Your task to perform on an android device: turn off data saver in the chrome app Image 0: 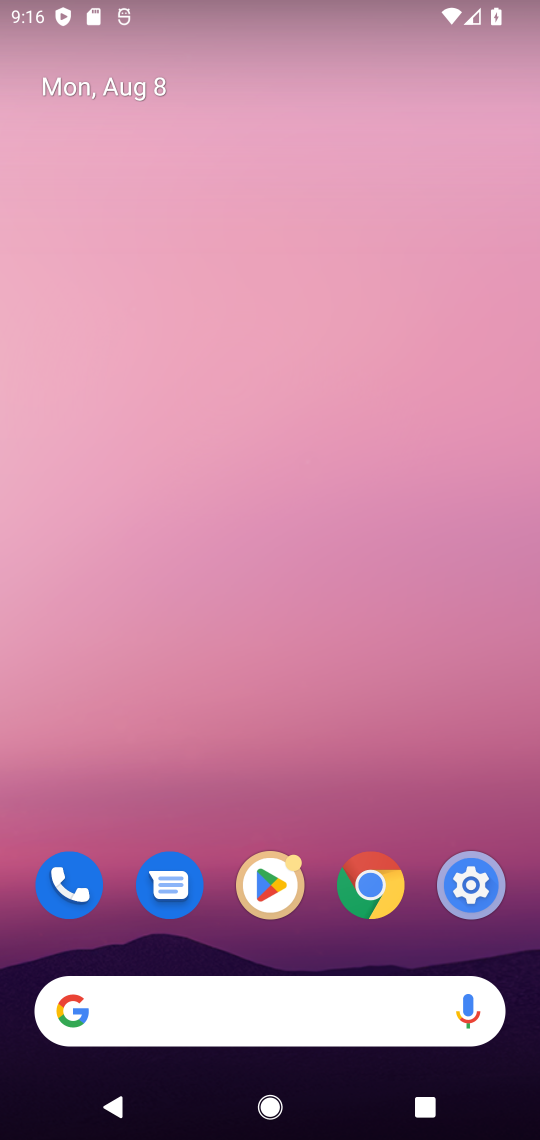
Step 0: drag from (368, 937) to (391, 567)
Your task to perform on an android device: turn off data saver in the chrome app Image 1: 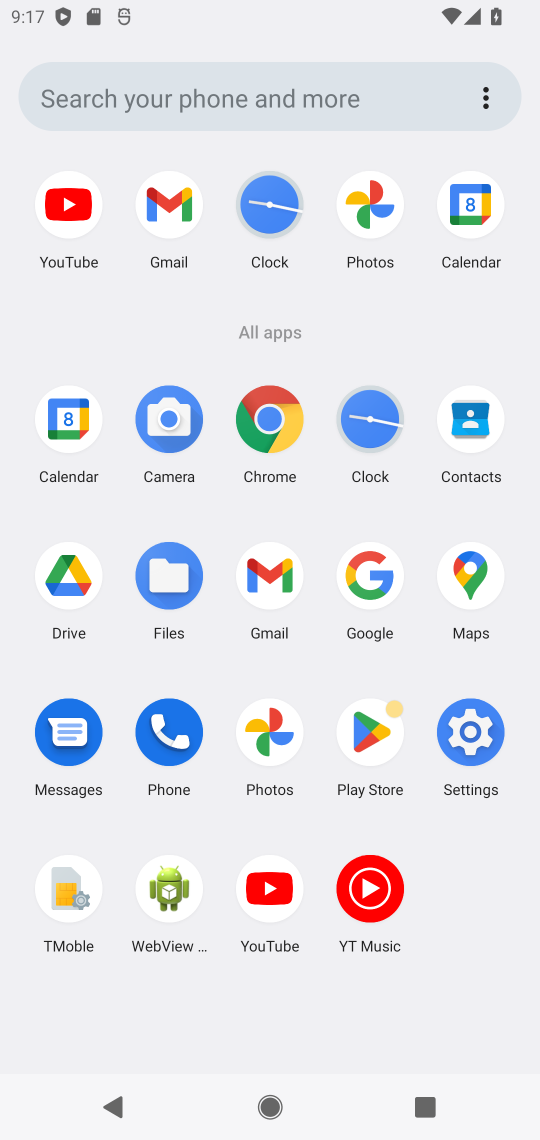
Step 1: click (257, 450)
Your task to perform on an android device: turn off data saver in the chrome app Image 2: 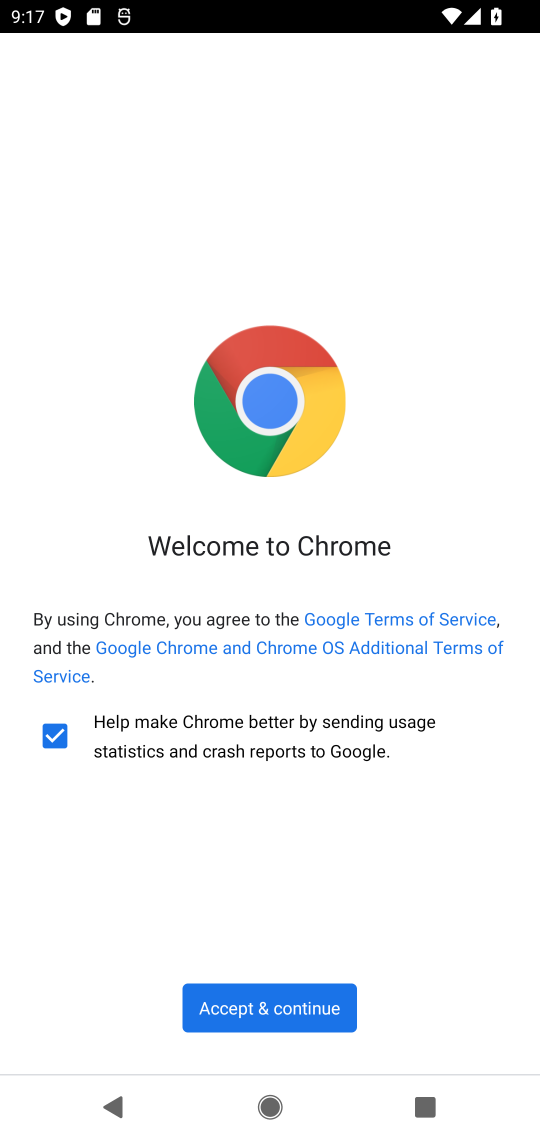
Step 2: click (307, 1018)
Your task to perform on an android device: turn off data saver in the chrome app Image 3: 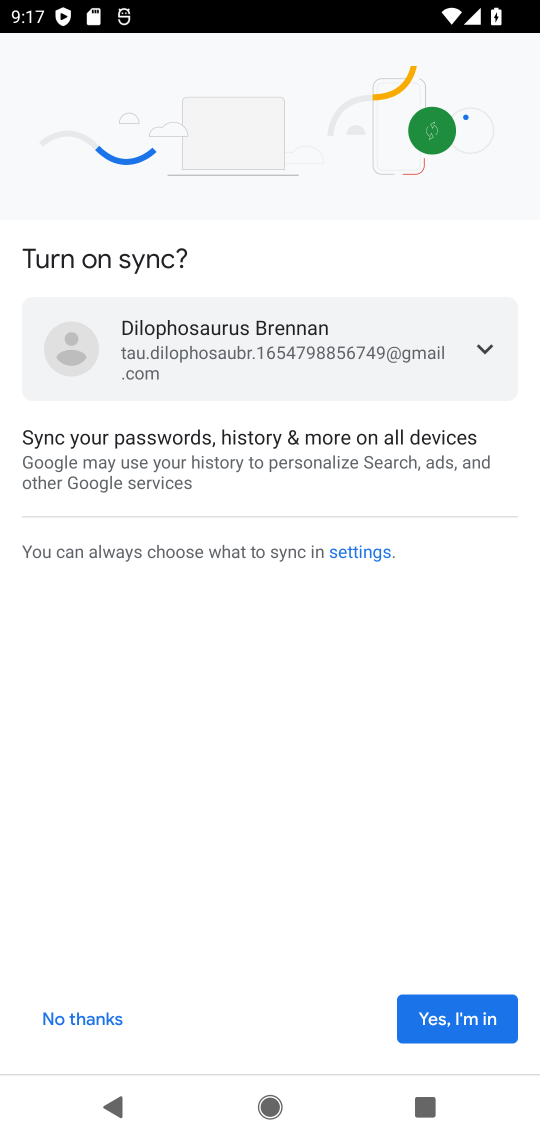
Step 3: click (453, 1018)
Your task to perform on an android device: turn off data saver in the chrome app Image 4: 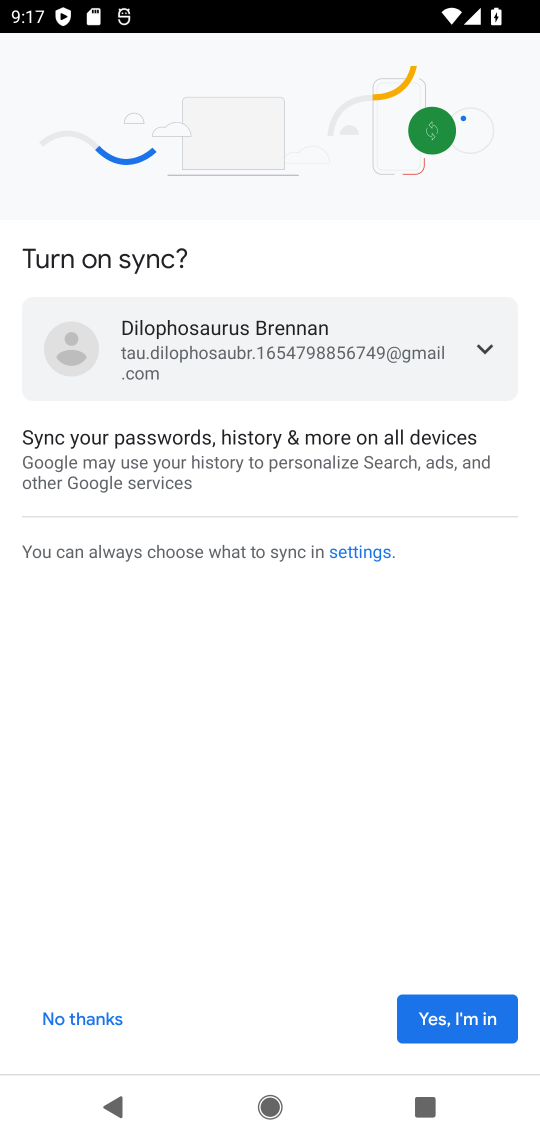
Step 4: click (453, 1018)
Your task to perform on an android device: turn off data saver in the chrome app Image 5: 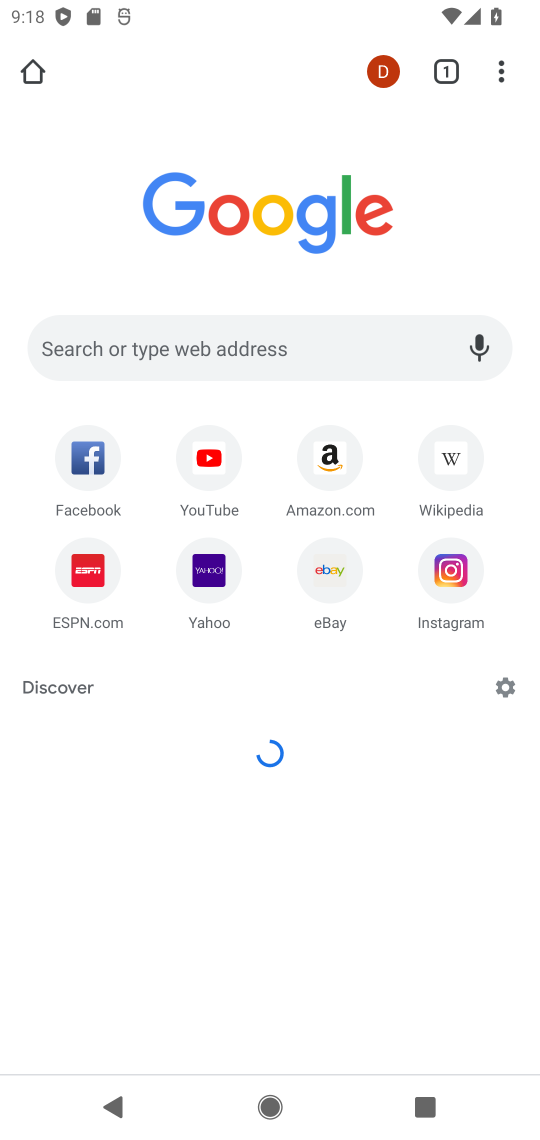
Step 5: drag from (508, 67) to (268, 688)
Your task to perform on an android device: turn off data saver in the chrome app Image 6: 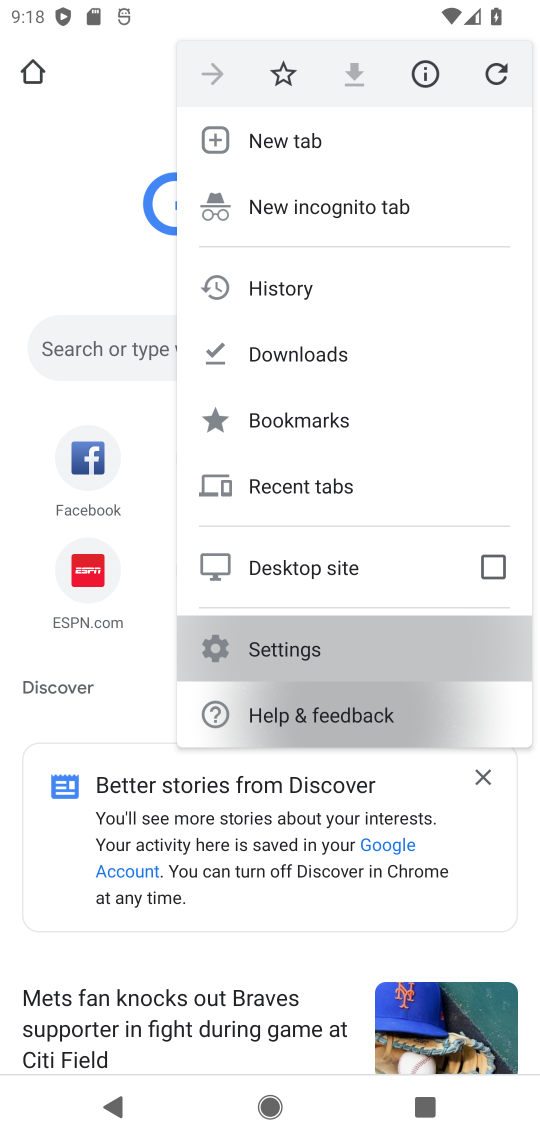
Step 6: click (233, 649)
Your task to perform on an android device: turn off data saver in the chrome app Image 7: 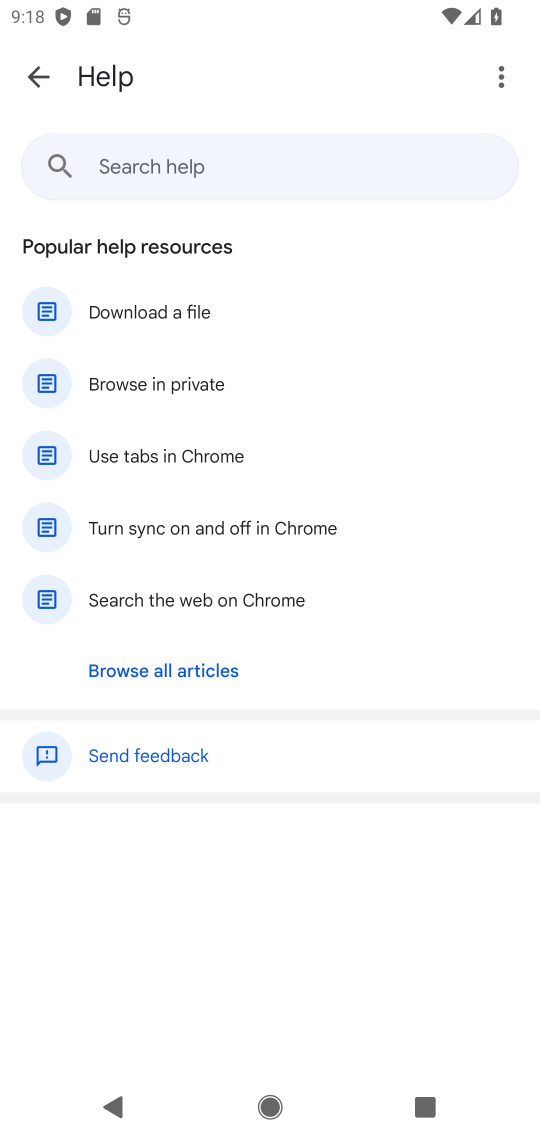
Step 7: press back button
Your task to perform on an android device: turn off data saver in the chrome app Image 8: 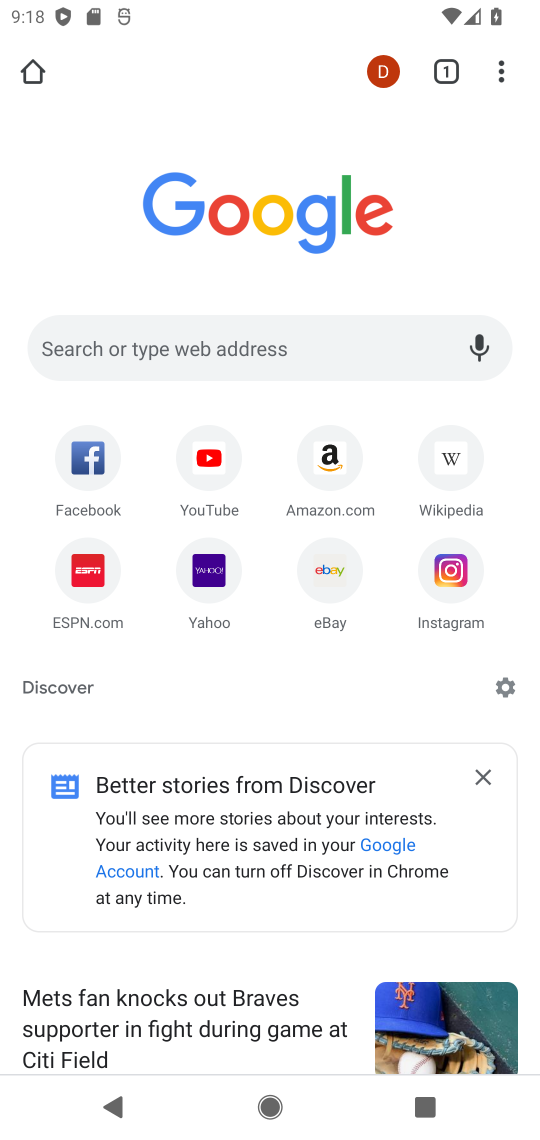
Step 8: drag from (497, 71) to (278, 641)
Your task to perform on an android device: turn off data saver in the chrome app Image 9: 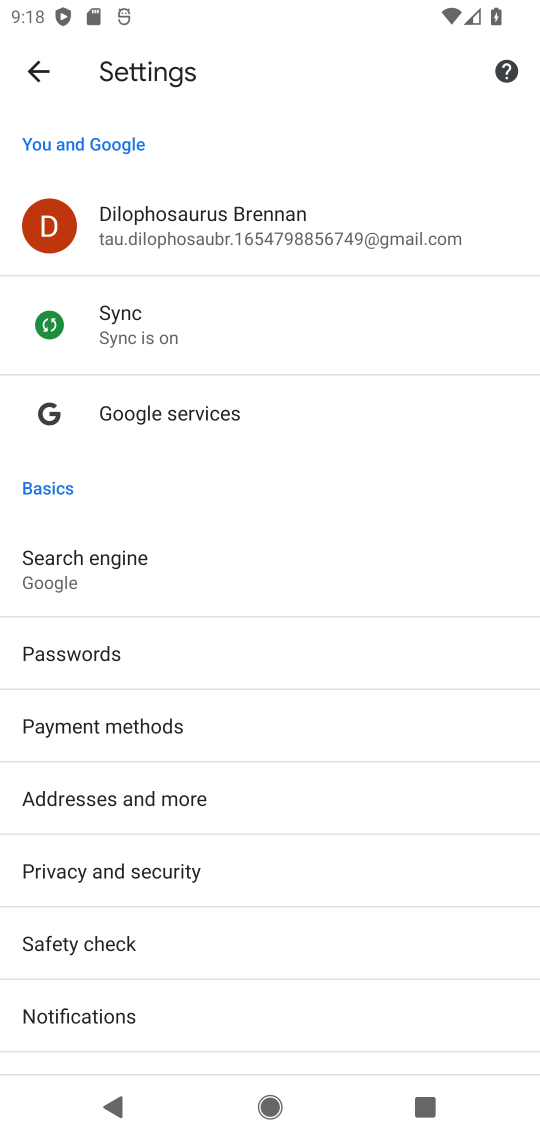
Step 9: drag from (149, 899) to (234, 253)
Your task to perform on an android device: turn off data saver in the chrome app Image 10: 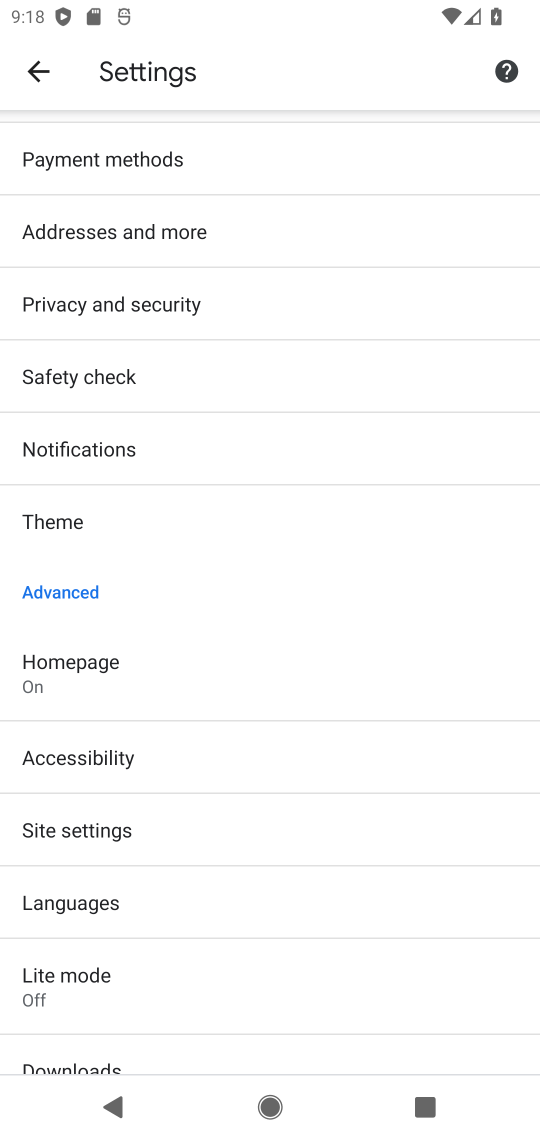
Step 10: click (97, 984)
Your task to perform on an android device: turn off data saver in the chrome app Image 11: 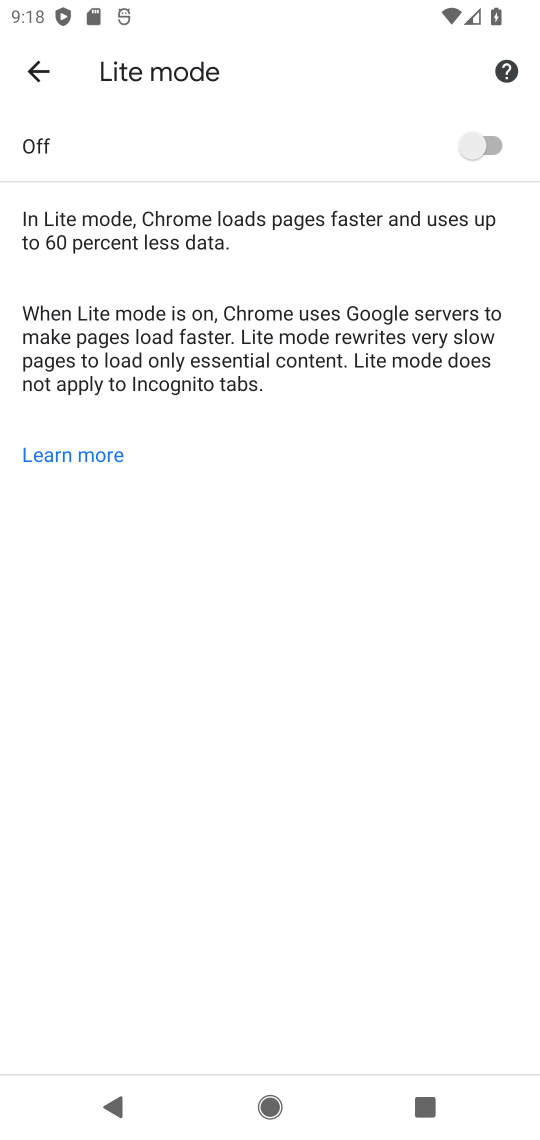
Step 11: task complete